Your task to perform on an android device: Open calendar and show me the third week of next month Image 0: 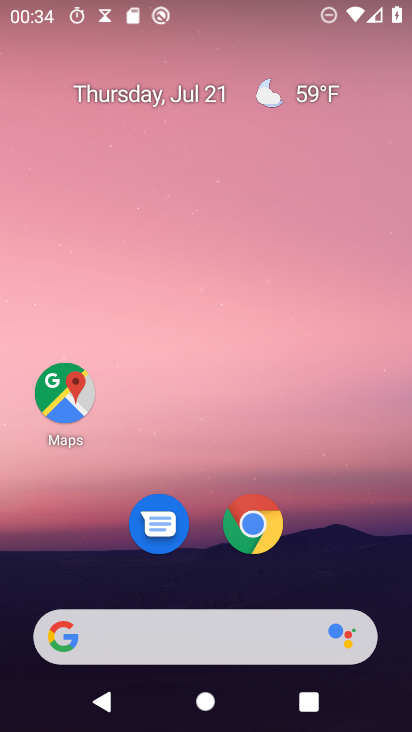
Step 0: drag from (168, 634) to (318, 125)
Your task to perform on an android device: Open calendar and show me the third week of next month Image 1: 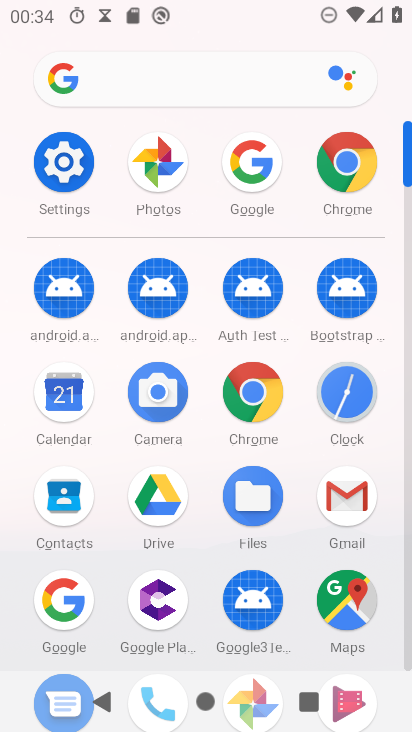
Step 1: click (71, 388)
Your task to perform on an android device: Open calendar and show me the third week of next month Image 2: 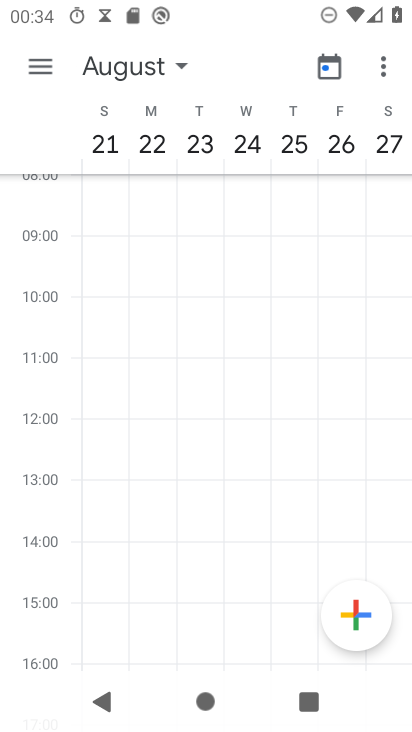
Step 2: click (108, 78)
Your task to perform on an android device: Open calendar and show me the third week of next month Image 3: 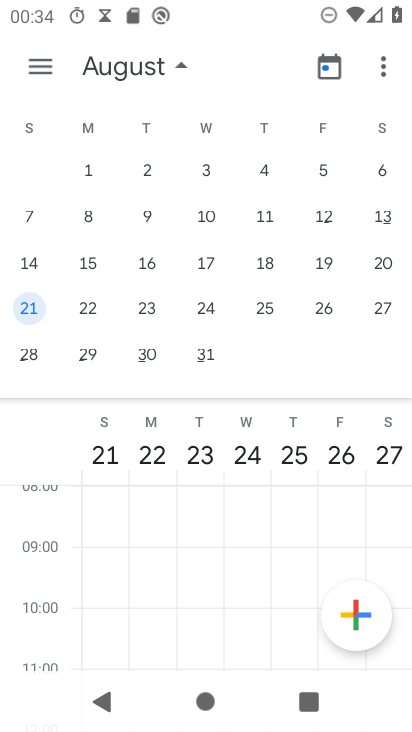
Step 3: click (32, 260)
Your task to perform on an android device: Open calendar and show me the third week of next month Image 4: 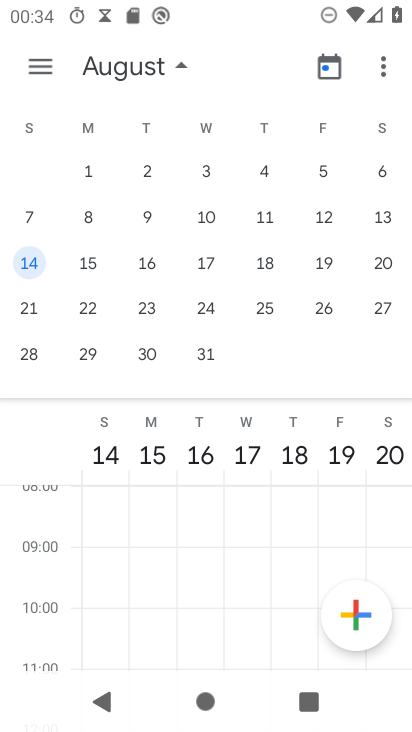
Step 4: task complete